Your task to perform on an android device: check android version Image 0: 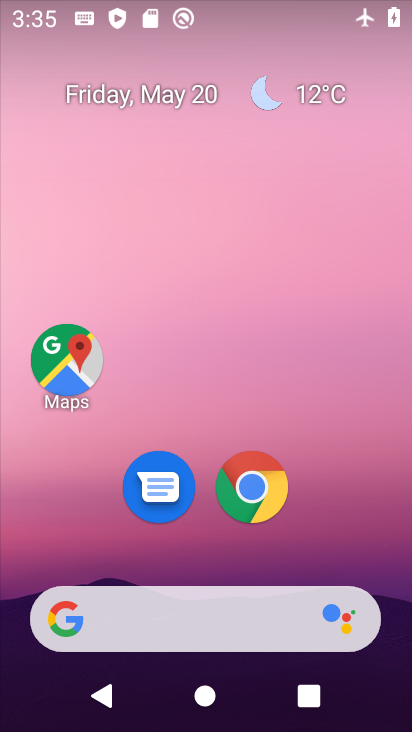
Step 0: drag from (192, 512) to (227, 12)
Your task to perform on an android device: check android version Image 1: 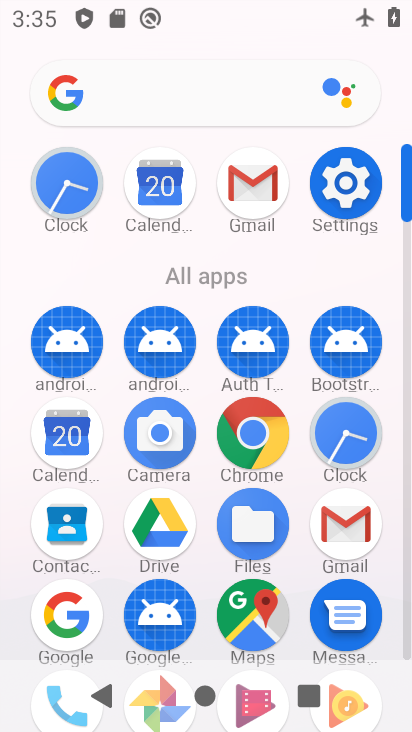
Step 1: click (354, 200)
Your task to perform on an android device: check android version Image 2: 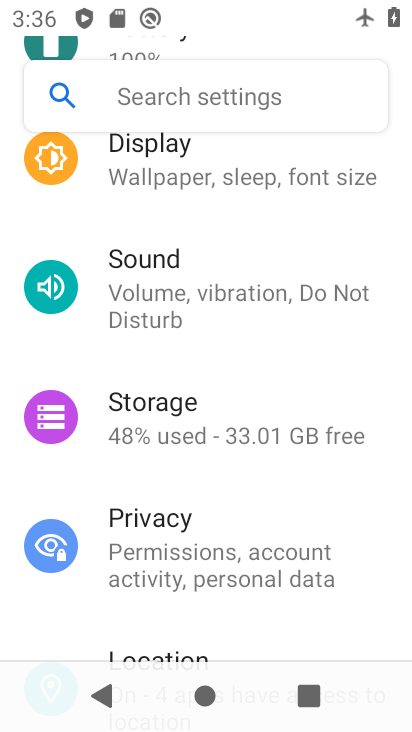
Step 2: drag from (208, 537) to (197, 308)
Your task to perform on an android device: check android version Image 3: 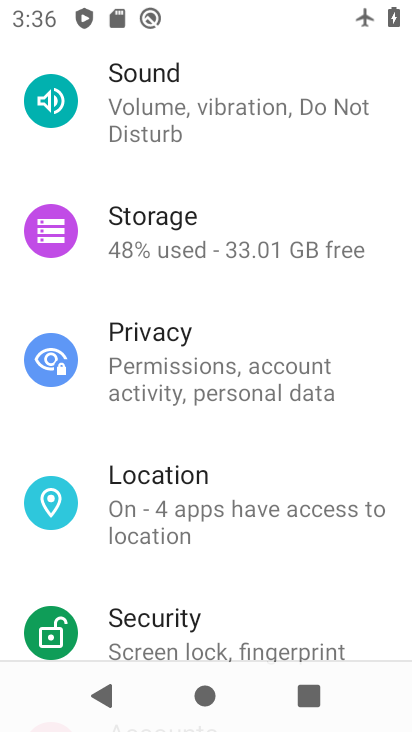
Step 3: drag from (197, 594) to (182, 214)
Your task to perform on an android device: check android version Image 4: 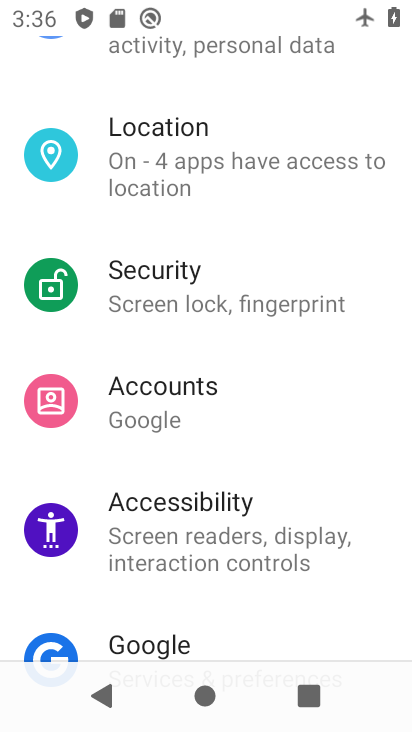
Step 4: drag from (204, 586) to (178, 253)
Your task to perform on an android device: check android version Image 5: 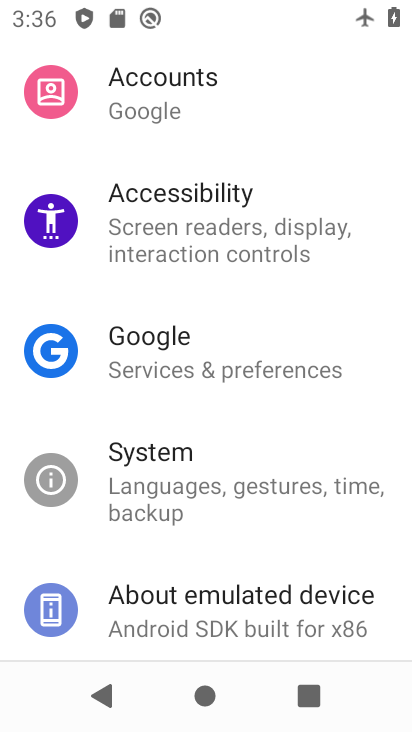
Step 5: click (225, 603)
Your task to perform on an android device: check android version Image 6: 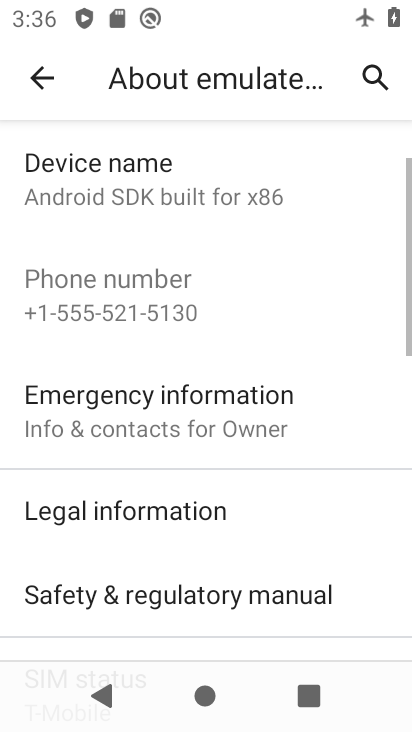
Step 6: drag from (234, 593) to (202, 252)
Your task to perform on an android device: check android version Image 7: 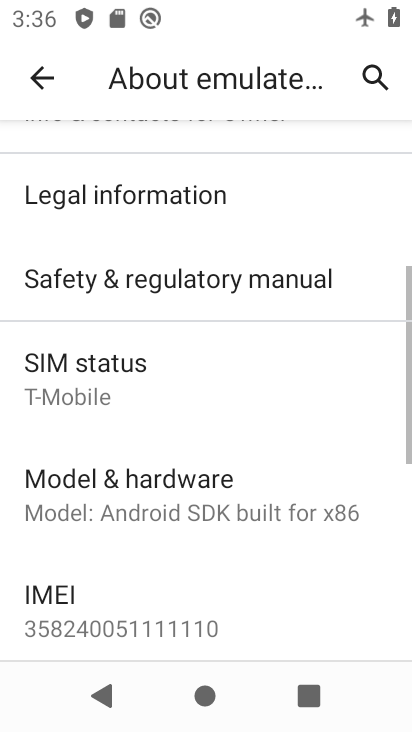
Step 7: drag from (204, 510) to (217, 216)
Your task to perform on an android device: check android version Image 8: 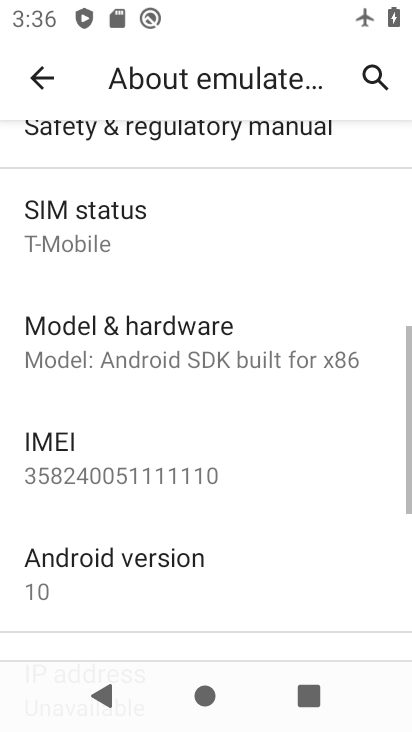
Step 8: click (161, 574)
Your task to perform on an android device: check android version Image 9: 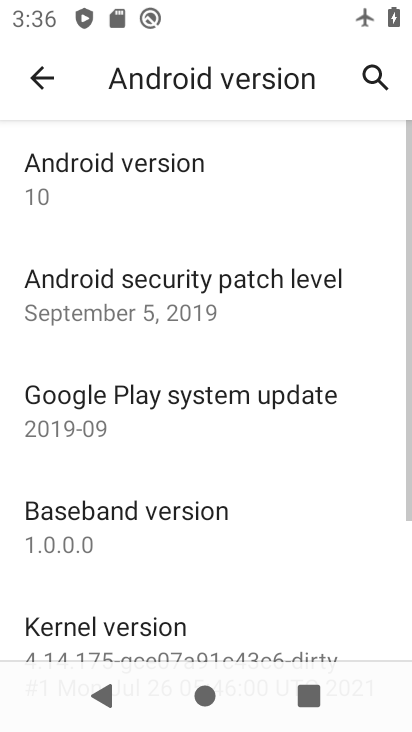
Step 9: task complete